Your task to perform on an android device: Go to Google maps Image 0: 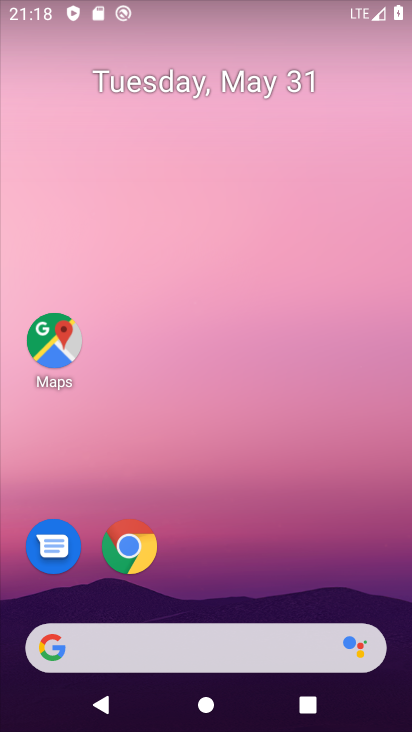
Step 0: click (49, 348)
Your task to perform on an android device: Go to Google maps Image 1: 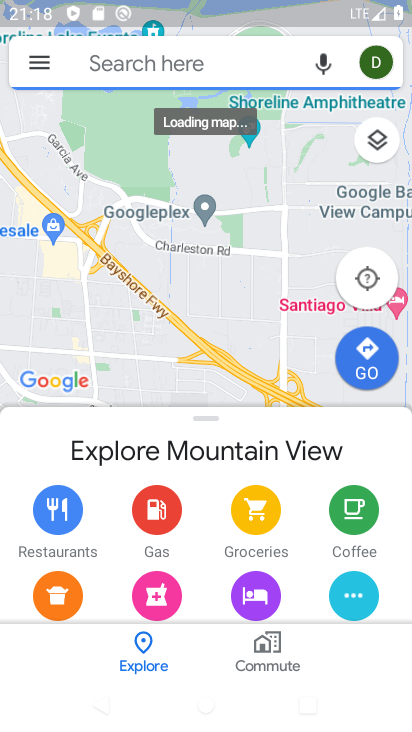
Step 1: task complete